Your task to perform on an android device: Open Wikipedia Image 0: 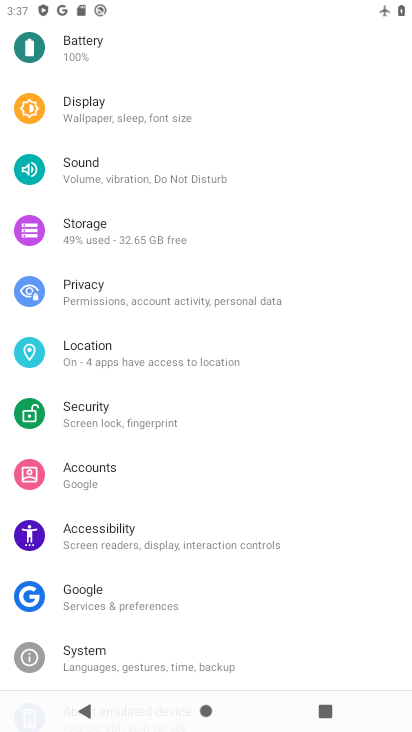
Step 0: press home button
Your task to perform on an android device: Open Wikipedia Image 1: 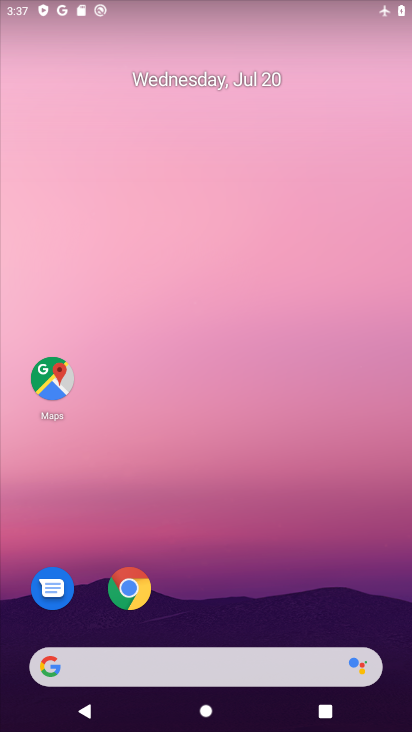
Step 1: click (123, 599)
Your task to perform on an android device: Open Wikipedia Image 2: 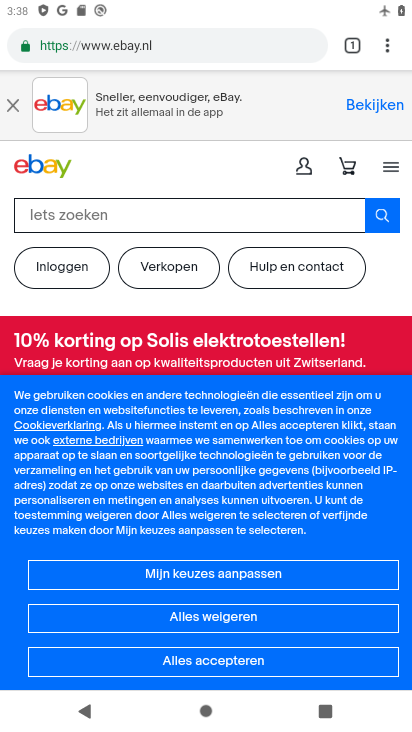
Step 2: click (350, 47)
Your task to perform on an android device: Open Wikipedia Image 3: 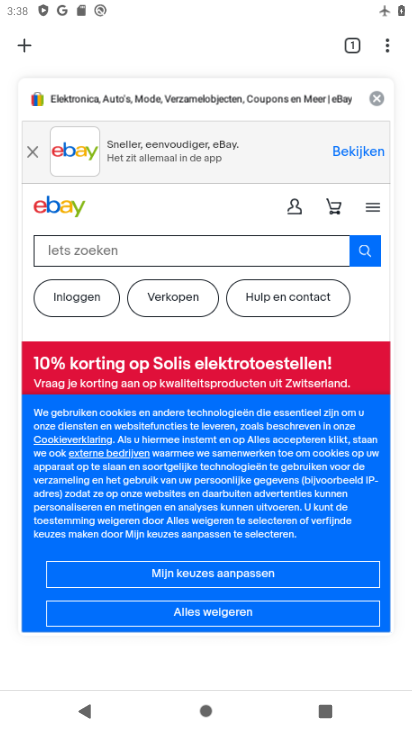
Step 3: click (41, 49)
Your task to perform on an android device: Open Wikipedia Image 4: 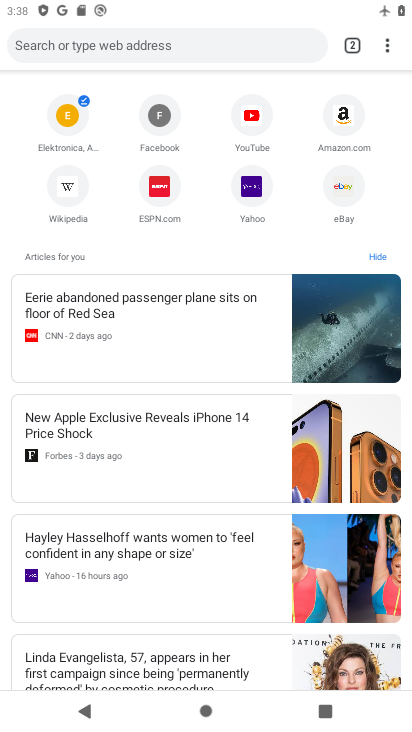
Step 4: click (72, 181)
Your task to perform on an android device: Open Wikipedia Image 5: 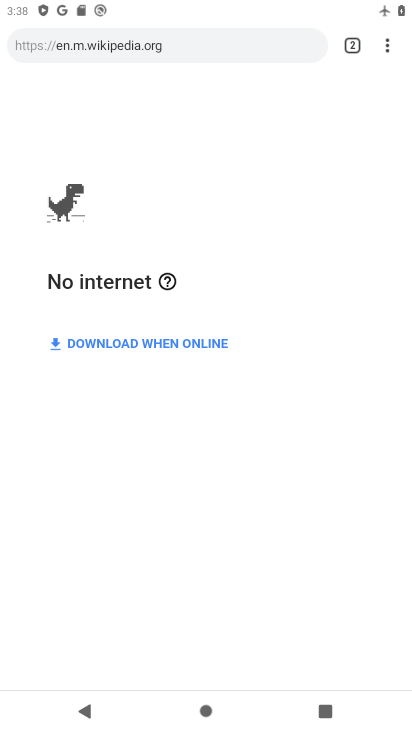
Step 5: drag from (205, 5) to (203, 724)
Your task to perform on an android device: Open Wikipedia Image 6: 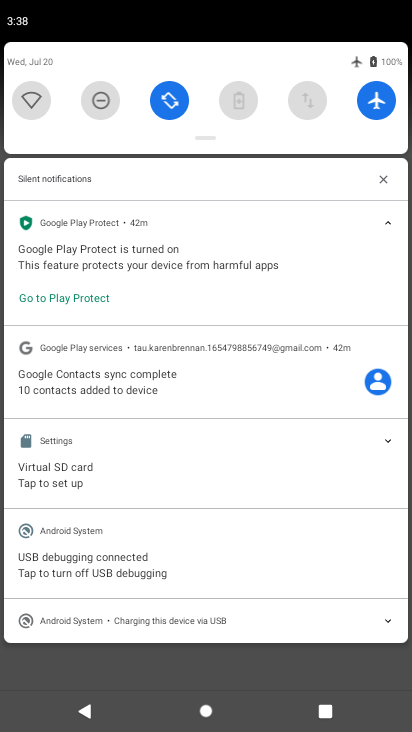
Step 6: click (380, 122)
Your task to perform on an android device: Open Wikipedia Image 7: 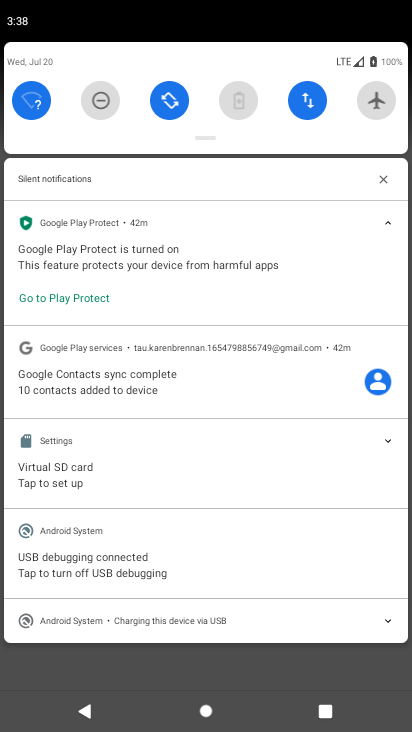
Step 7: task complete